Your task to perform on an android device: read, delete, or share a saved page in the chrome app Image 0: 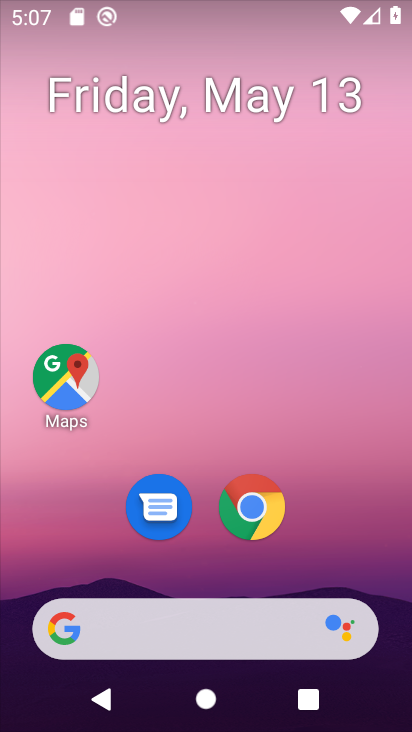
Step 0: click (260, 514)
Your task to perform on an android device: read, delete, or share a saved page in the chrome app Image 1: 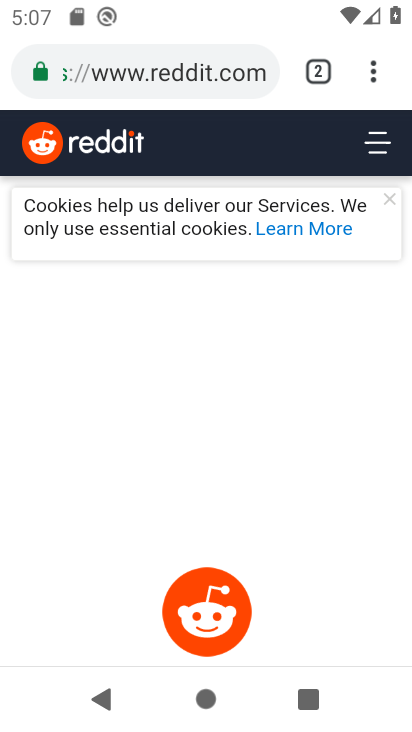
Step 1: click (369, 68)
Your task to perform on an android device: read, delete, or share a saved page in the chrome app Image 2: 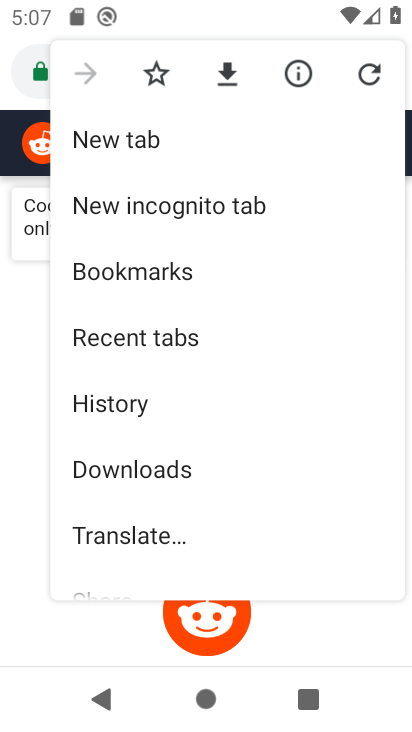
Step 2: click (143, 476)
Your task to perform on an android device: read, delete, or share a saved page in the chrome app Image 3: 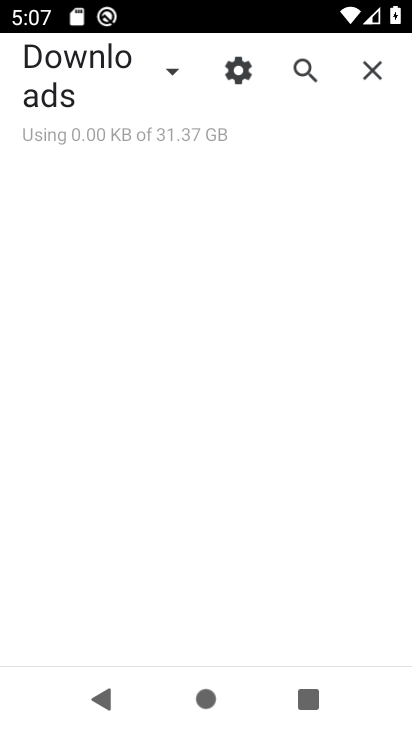
Step 3: click (94, 65)
Your task to perform on an android device: read, delete, or share a saved page in the chrome app Image 4: 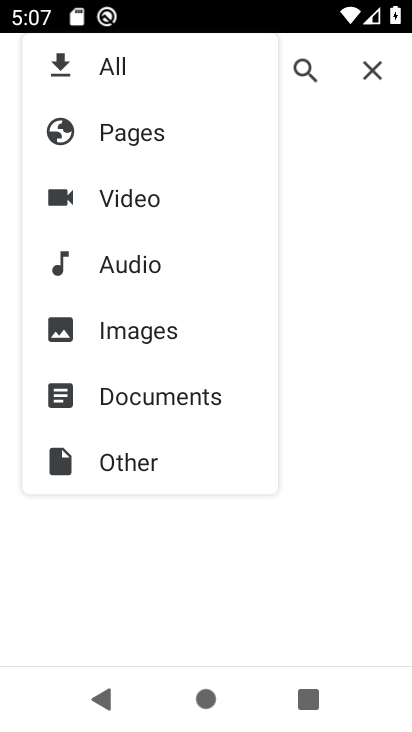
Step 4: click (117, 128)
Your task to perform on an android device: read, delete, or share a saved page in the chrome app Image 5: 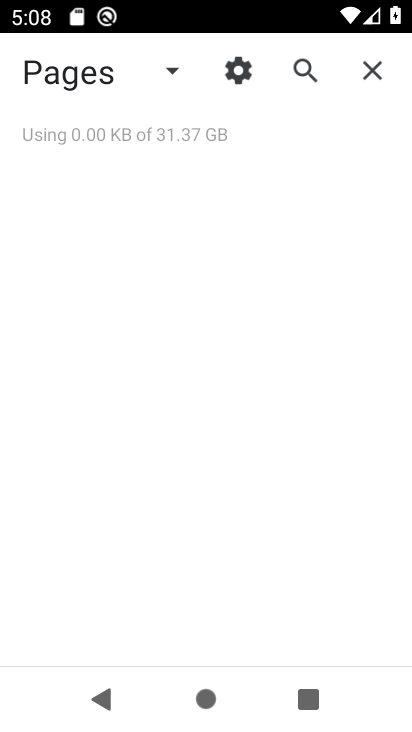
Step 5: task complete